Your task to perform on an android device: toggle airplane mode Image 0: 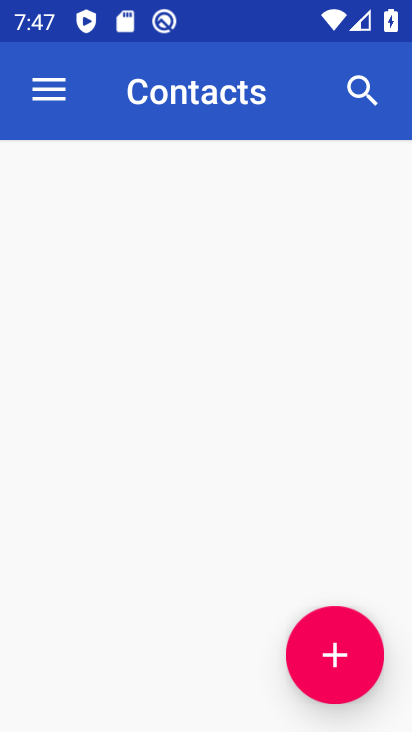
Step 0: drag from (246, 14) to (299, 530)
Your task to perform on an android device: toggle airplane mode Image 1: 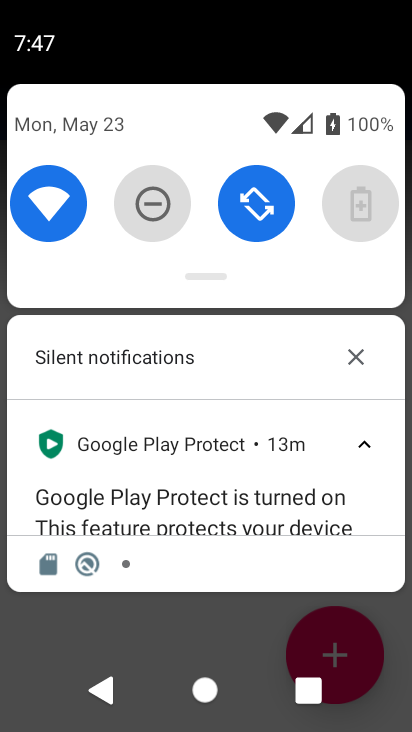
Step 1: drag from (261, 102) to (315, 607)
Your task to perform on an android device: toggle airplane mode Image 2: 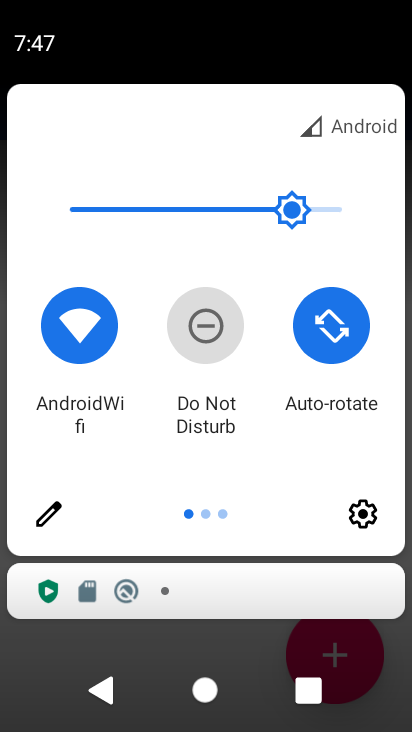
Step 2: drag from (374, 442) to (10, 459)
Your task to perform on an android device: toggle airplane mode Image 3: 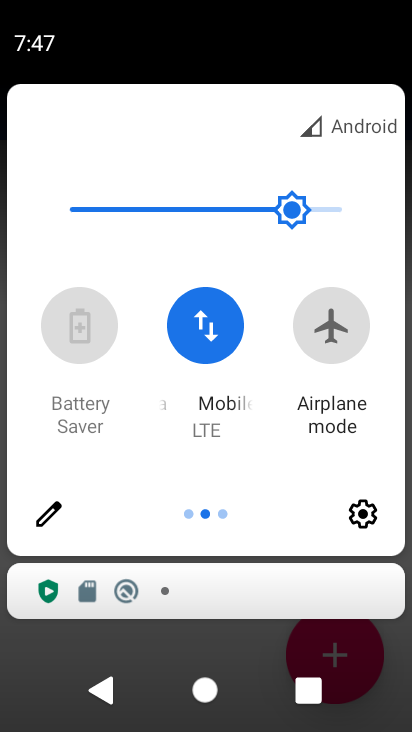
Step 3: click (344, 335)
Your task to perform on an android device: toggle airplane mode Image 4: 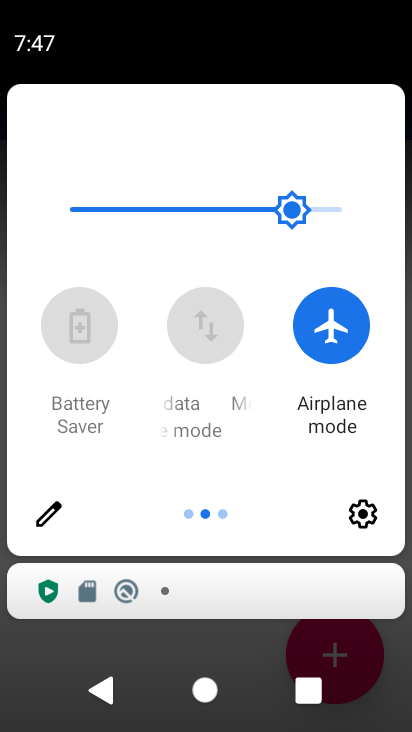
Step 4: click (344, 335)
Your task to perform on an android device: toggle airplane mode Image 5: 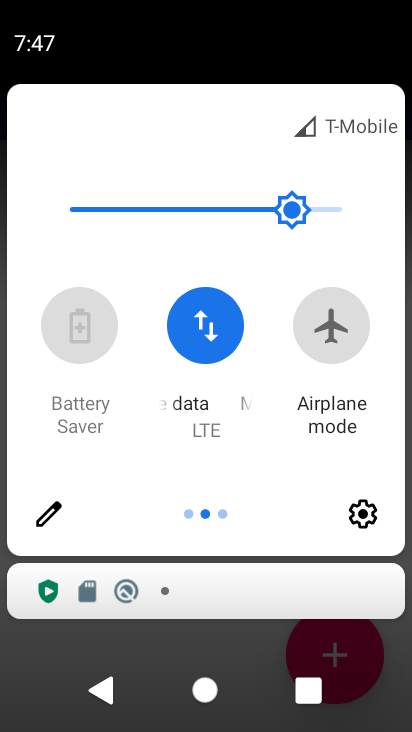
Step 5: click (344, 335)
Your task to perform on an android device: toggle airplane mode Image 6: 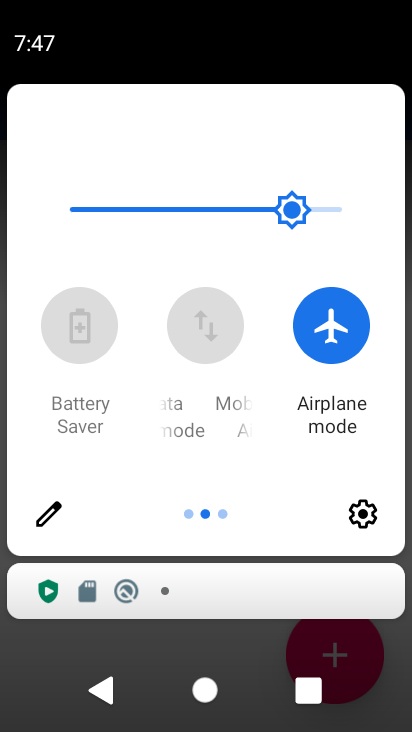
Step 6: click (344, 335)
Your task to perform on an android device: toggle airplane mode Image 7: 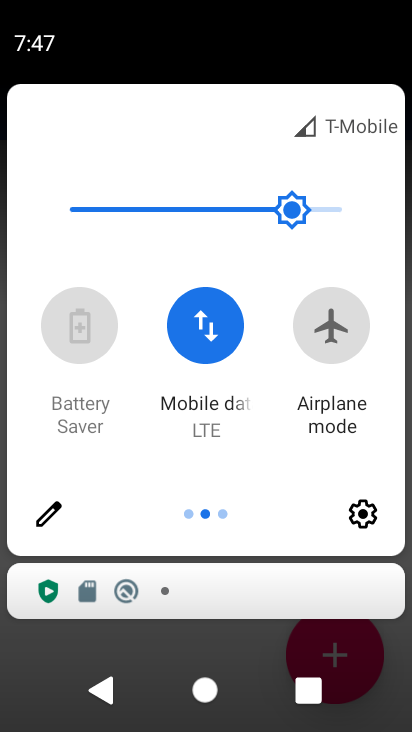
Step 7: task complete